Your task to perform on an android device: Open the phone app and click the voicemail tab. Image 0: 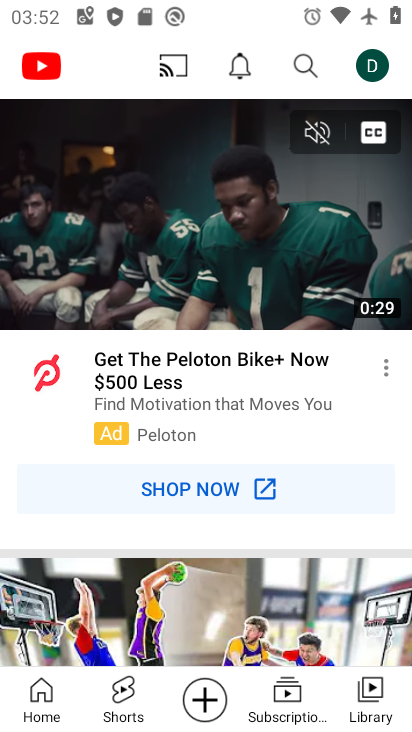
Step 0: press home button
Your task to perform on an android device: Open the phone app and click the voicemail tab. Image 1: 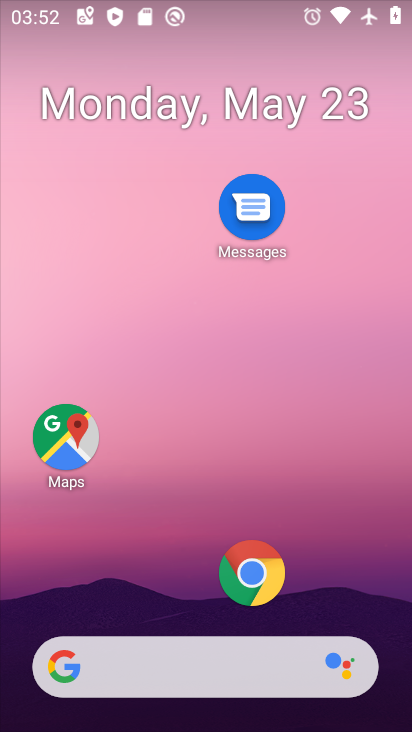
Step 1: drag from (210, 716) to (185, 27)
Your task to perform on an android device: Open the phone app and click the voicemail tab. Image 2: 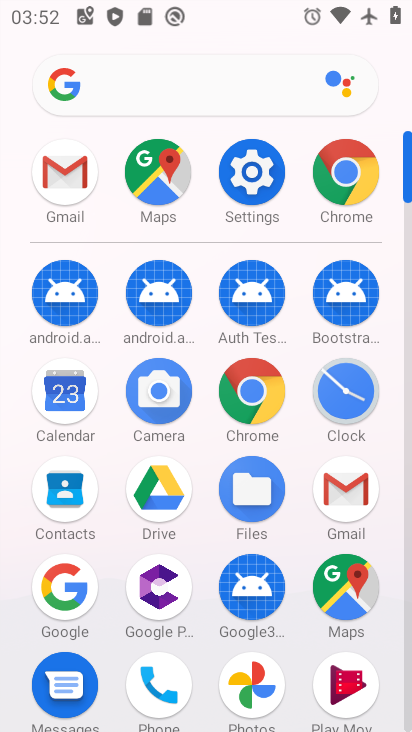
Step 2: click (176, 671)
Your task to perform on an android device: Open the phone app and click the voicemail tab. Image 3: 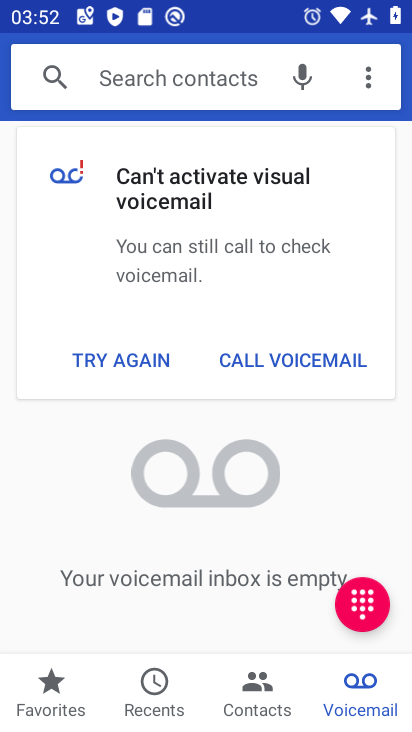
Step 3: click (357, 690)
Your task to perform on an android device: Open the phone app and click the voicemail tab. Image 4: 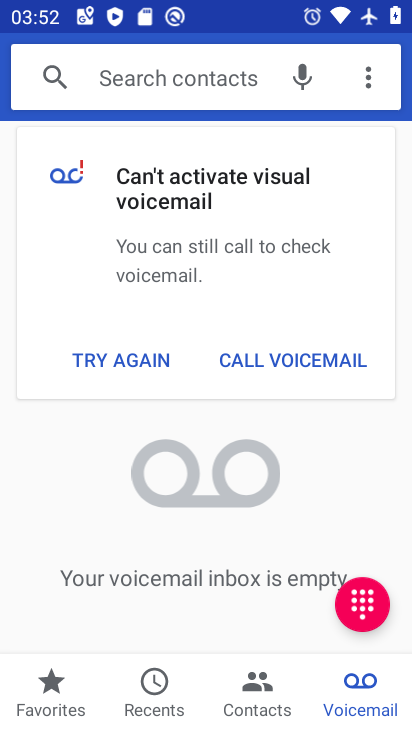
Step 4: task complete